Your task to perform on an android device: Search for pizza restaurants on Maps Image 0: 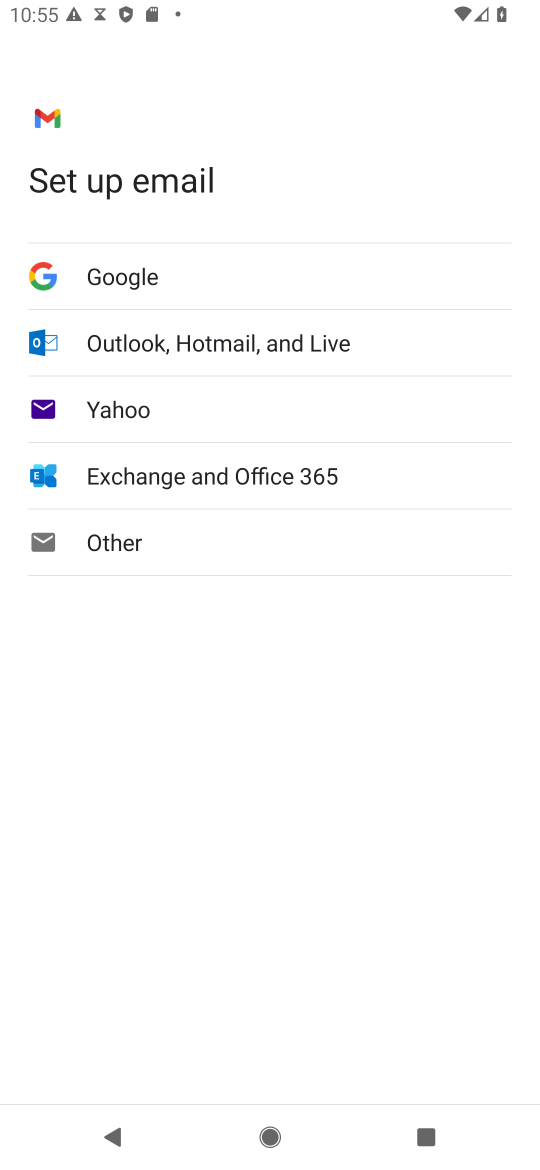
Step 0: press home button
Your task to perform on an android device: Search for pizza restaurants on Maps Image 1: 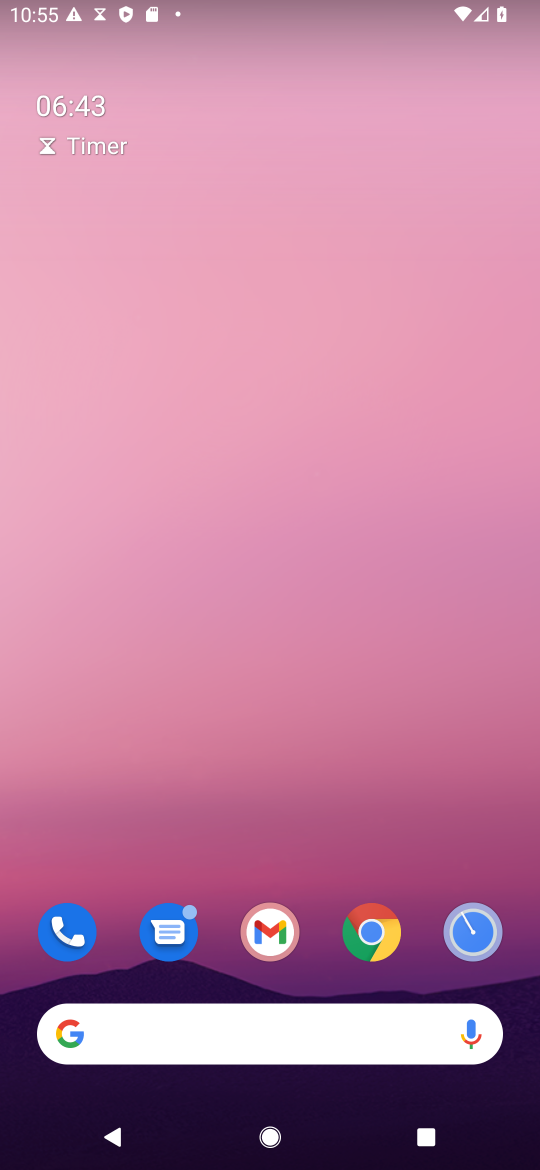
Step 1: drag from (230, 997) to (352, 0)
Your task to perform on an android device: Search for pizza restaurants on Maps Image 2: 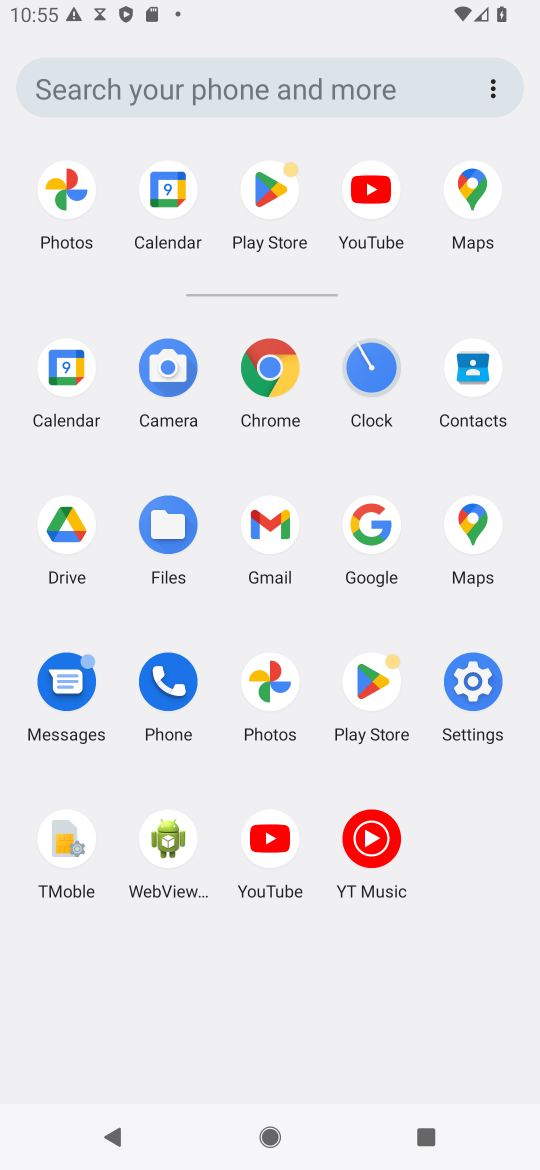
Step 2: click (465, 549)
Your task to perform on an android device: Search for pizza restaurants on Maps Image 3: 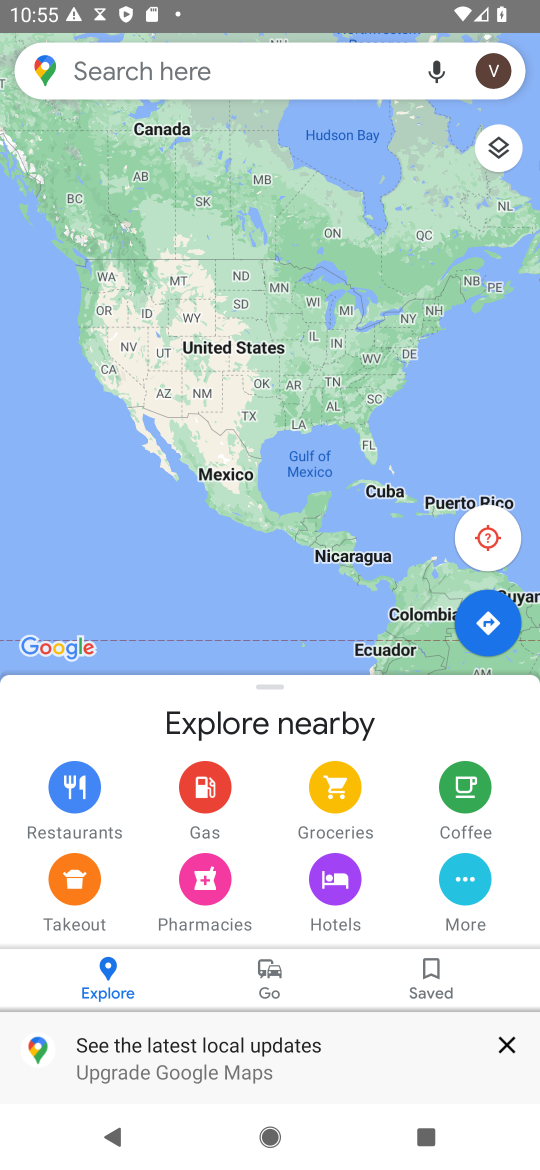
Step 3: click (226, 85)
Your task to perform on an android device: Search for pizza restaurants on Maps Image 4: 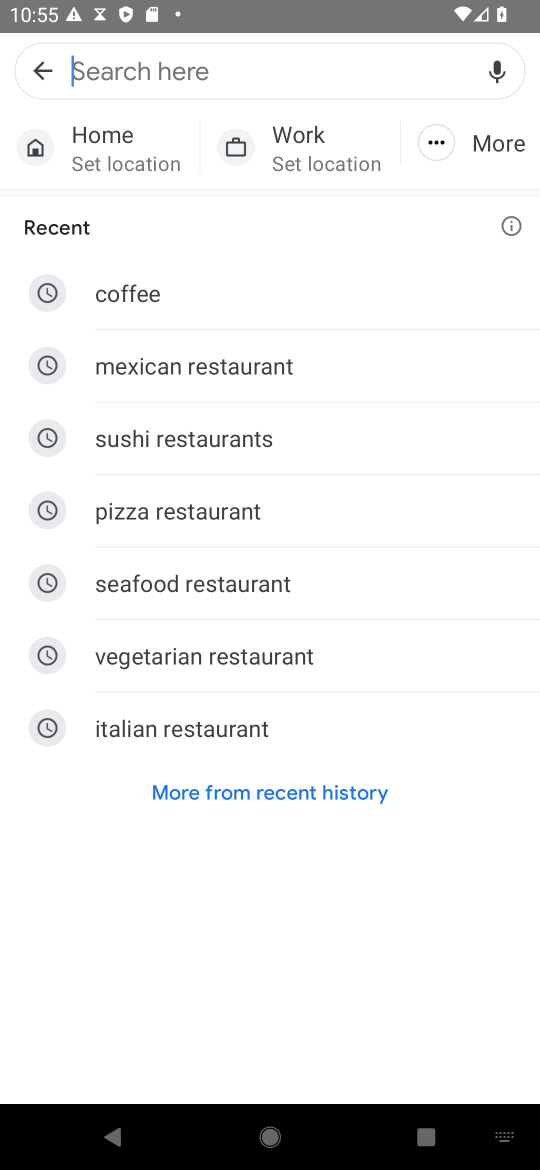
Step 4: type "piuzza restaurants"
Your task to perform on an android device: Search for pizza restaurants on Maps Image 5: 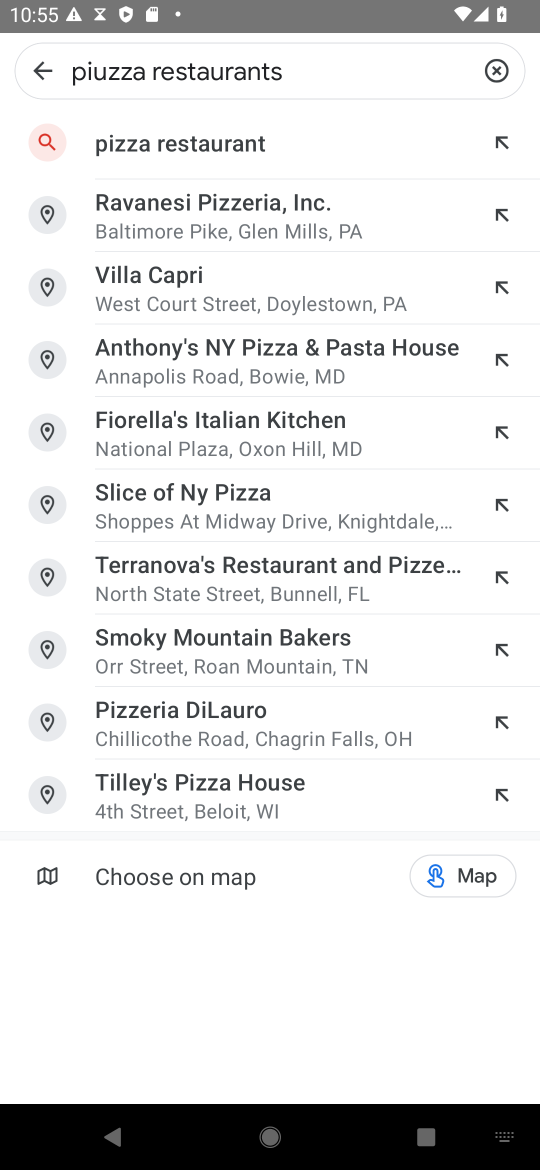
Step 5: click (196, 141)
Your task to perform on an android device: Search for pizza restaurants on Maps Image 6: 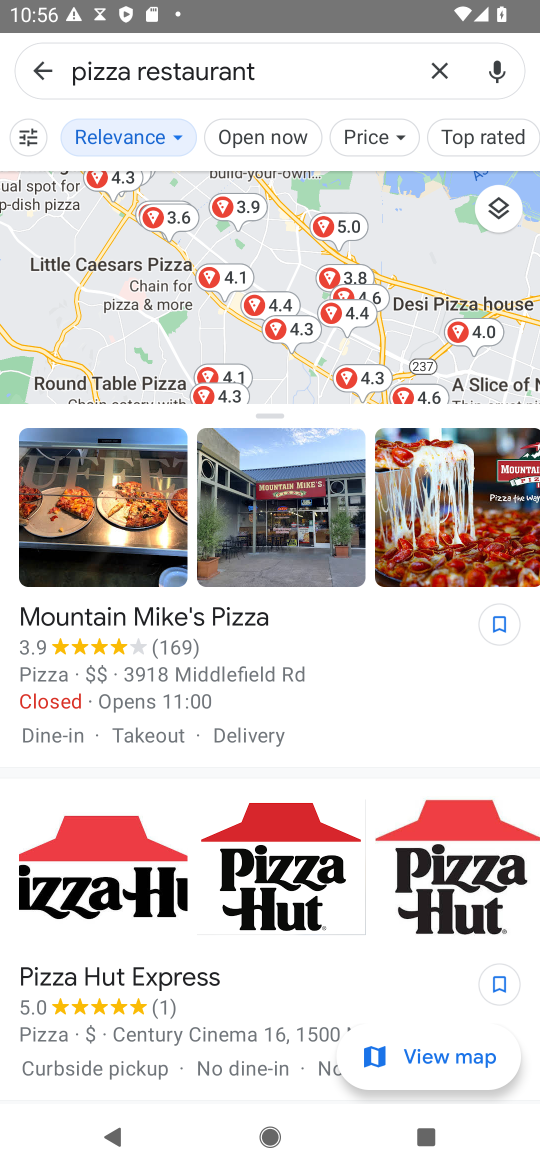
Step 6: task complete